Your task to perform on an android device: Search for sushi restaurants on Maps Image 0: 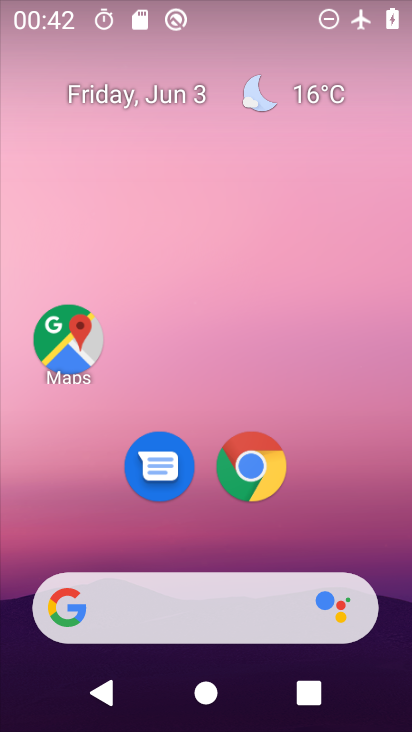
Step 0: click (70, 362)
Your task to perform on an android device: Search for sushi restaurants on Maps Image 1: 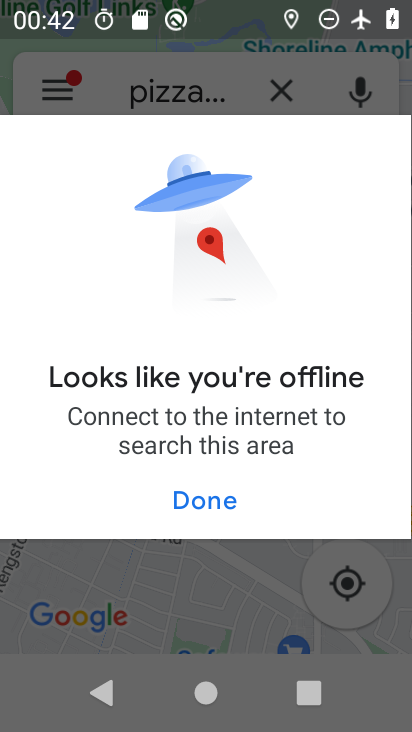
Step 1: task complete